Your task to perform on an android device: check battery use Image 0: 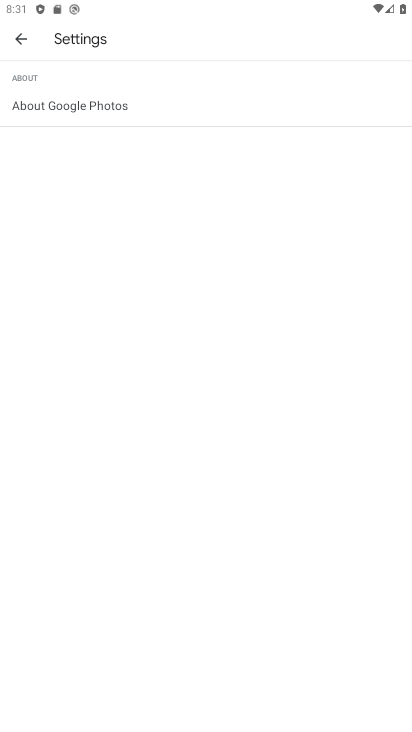
Step 0: press home button
Your task to perform on an android device: check battery use Image 1: 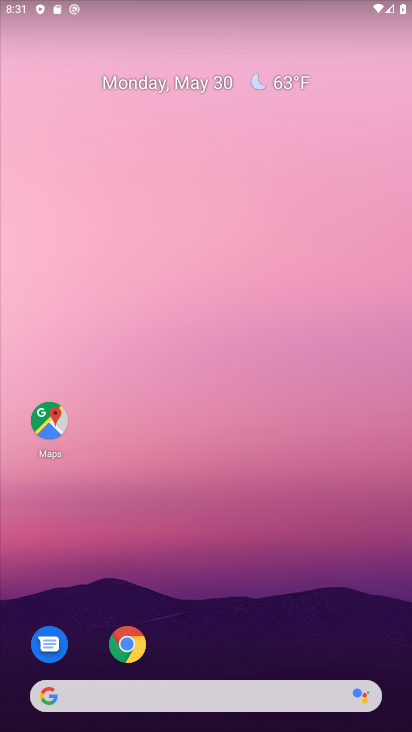
Step 1: drag from (217, 633) to (256, 98)
Your task to perform on an android device: check battery use Image 2: 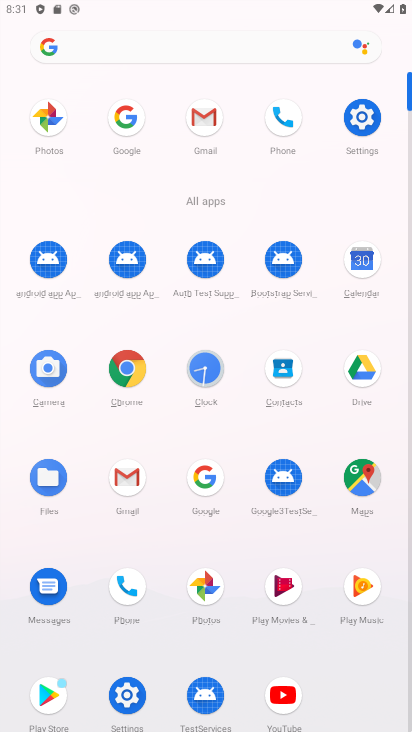
Step 2: click (359, 106)
Your task to perform on an android device: check battery use Image 3: 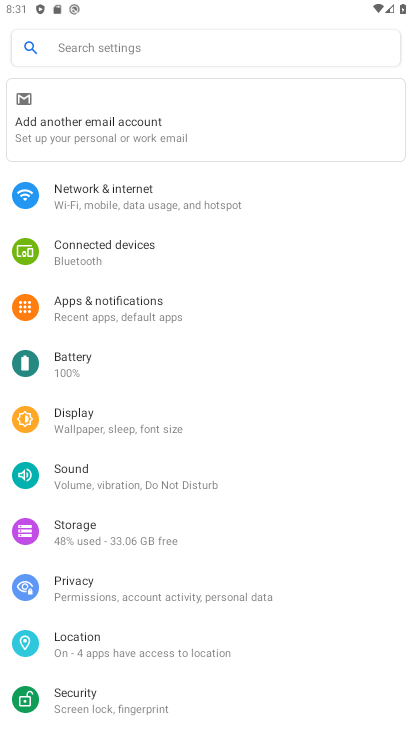
Step 3: click (65, 362)
Your task to perform on an android device: check battery use Image 4: 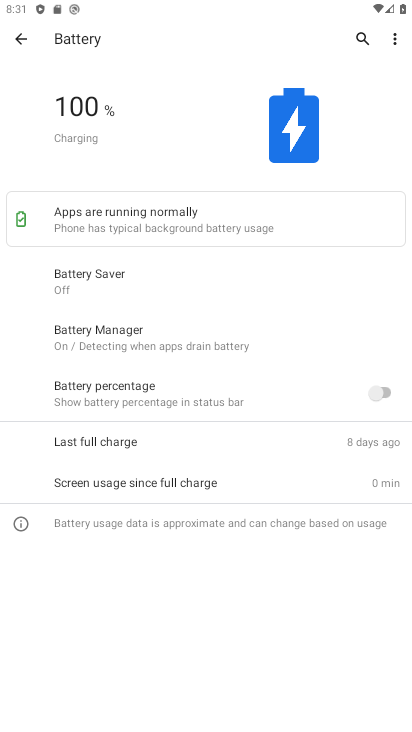
Step 4: click (382, 40)
Your task to perform on an android device: check battery use Image 5: 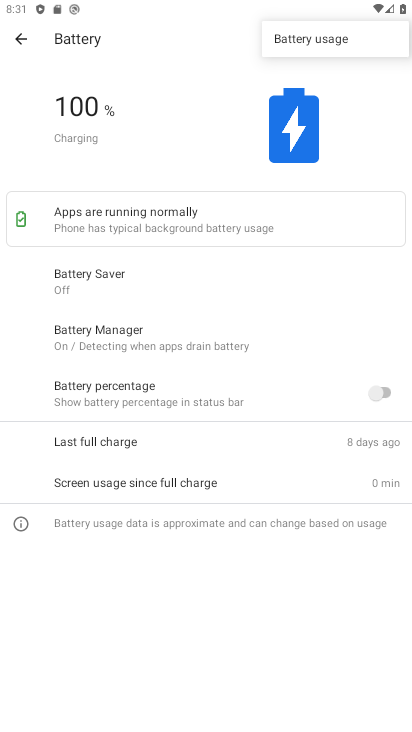
Step 5: click (320, 46)
Your task to perform on an android device: check battery use Image 6: 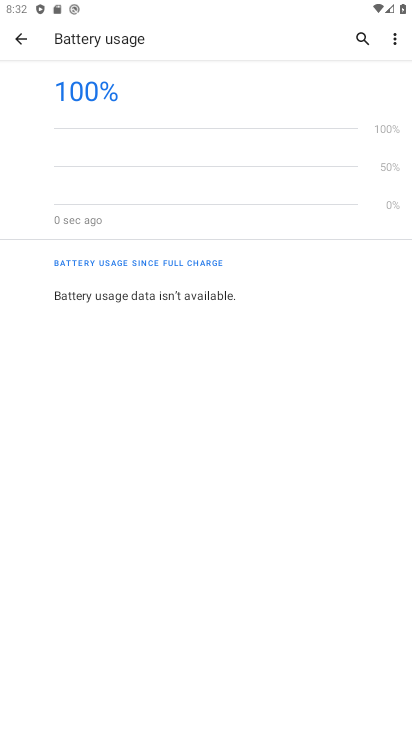
Step 6: task complete